Your task to perform on an android device: add a contact in the contacts app Image 0: 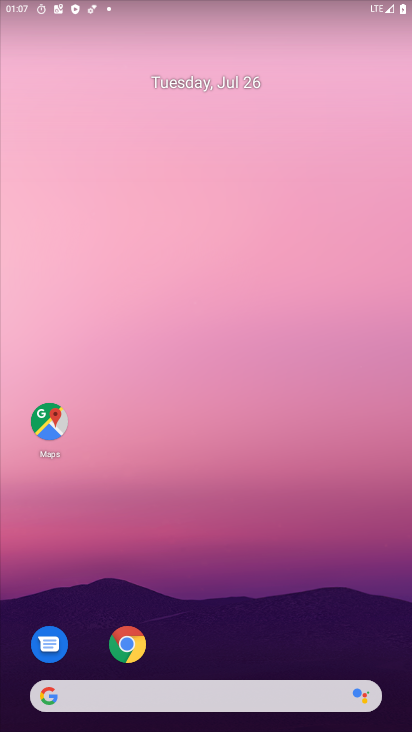
Step 0: drag from (235, 660) to (239, 71)
Your task to perform on an android device: add a contact in the contacts app Image 1: 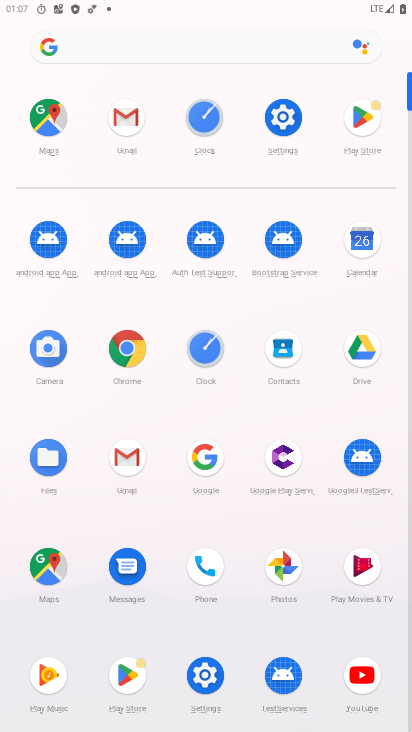
Step 1: click (284, 347)
Your task to perform on an android device: add a contact in the contacts app Image 2: 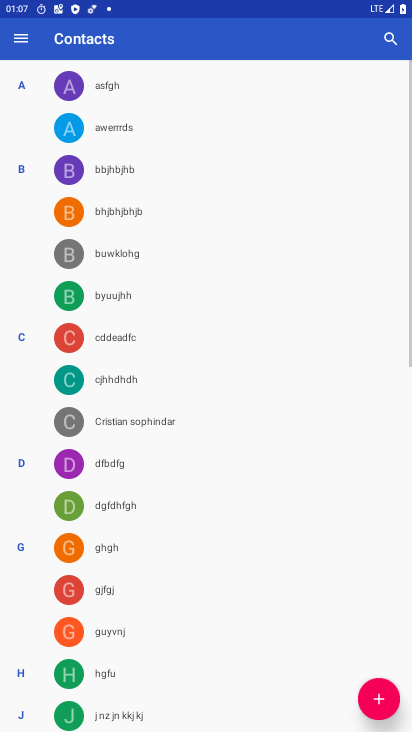
Step 2: click (380, 701)
Your task to perform on an android device: add a contact in the contacts app Image 3: 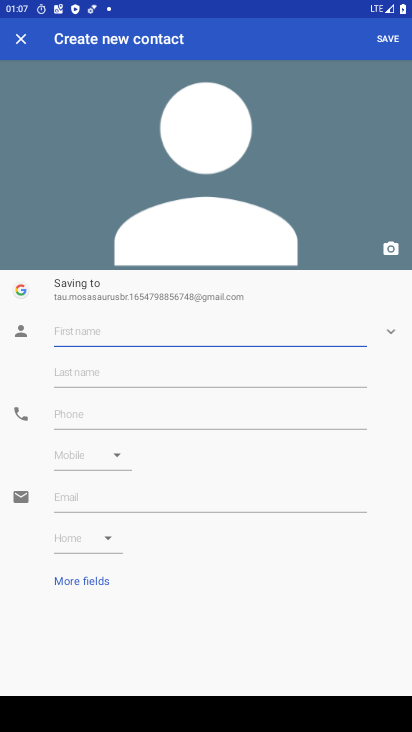
Step 3: click (66, 334)
Your task to perform on an android device: add a contact in the contacts app Image 4: 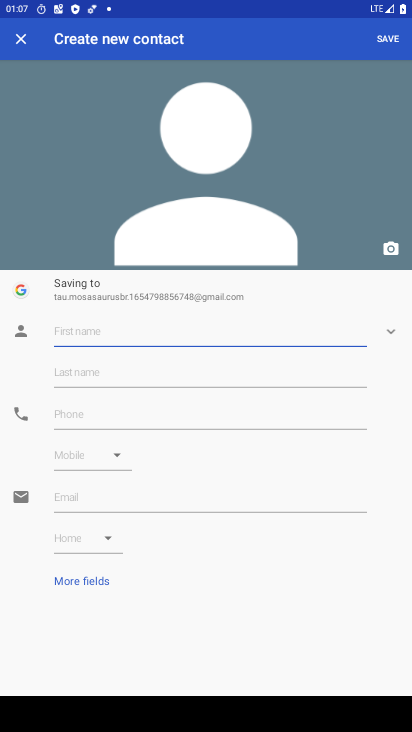
Step 4: type "iuyyty"
Your task to perform on an android device: add a contact in the contacts app Image 5: 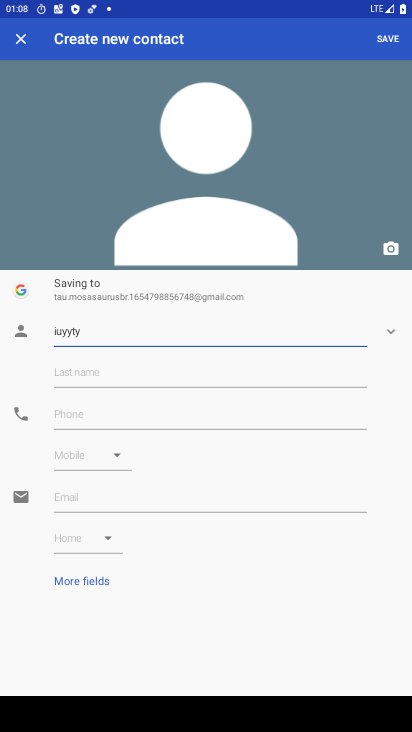
Step 5: click (80, 417)
Your task to perform on an android device: add a contact in the contacts app Image 6: 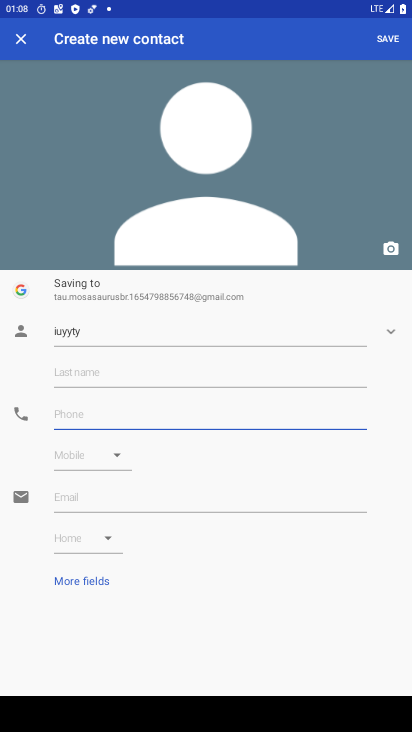
Step 6: type "8776555444"
Your task to perform on an android device: add a contact in the contacts app Image 7: 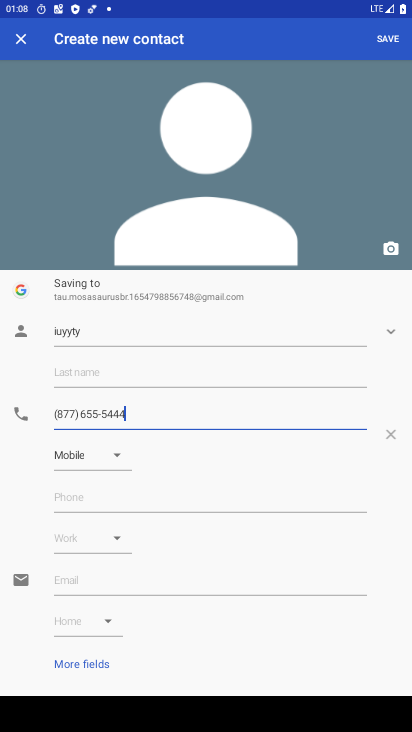
Step 7: click (392, 44)
Your task to perform on an android device: add a contact in the contacts app Image 8: 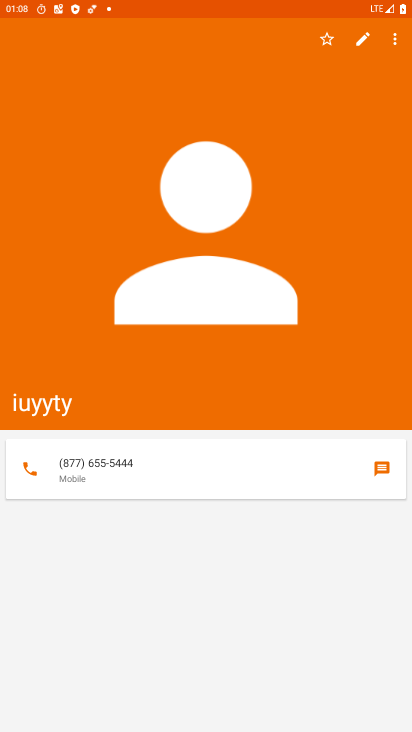
Step 8: task complete